Your task to perform on an android device: Go to sound settings Image 0: 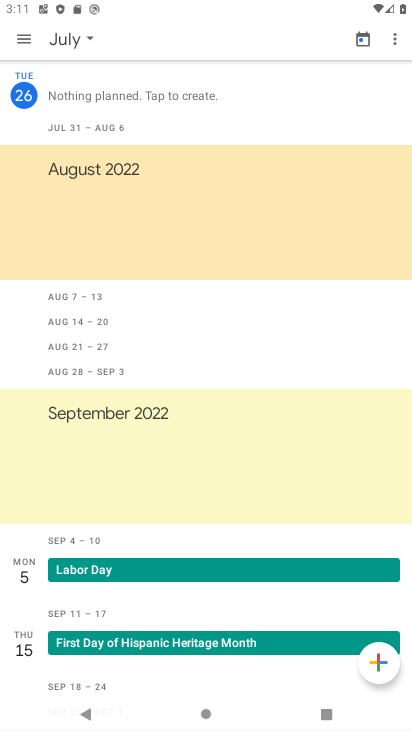
Step 0: press home button
Your task to perform on an android device: Go to sound settings Image 1: 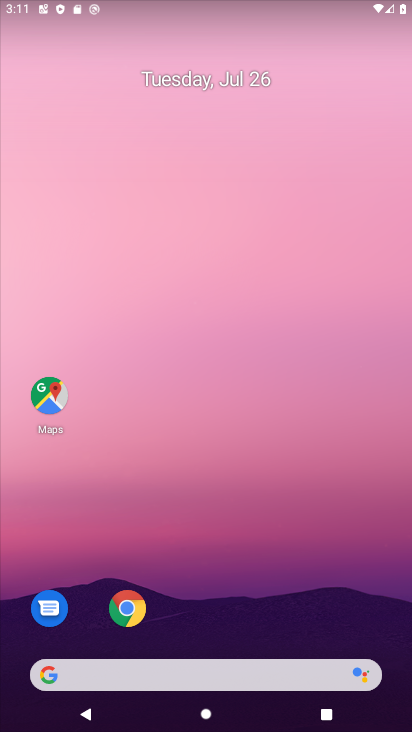
Step 1: drag from (190, 652) to (159, 10)
Your task to perform on an android device: Go to sound settings Image 2: 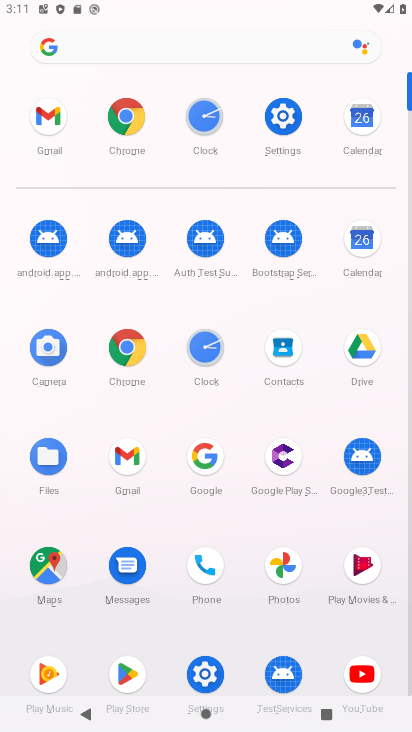
Step 2: click (287, 127)
Your task to perform on an android device: Go to sound settings Image 3: 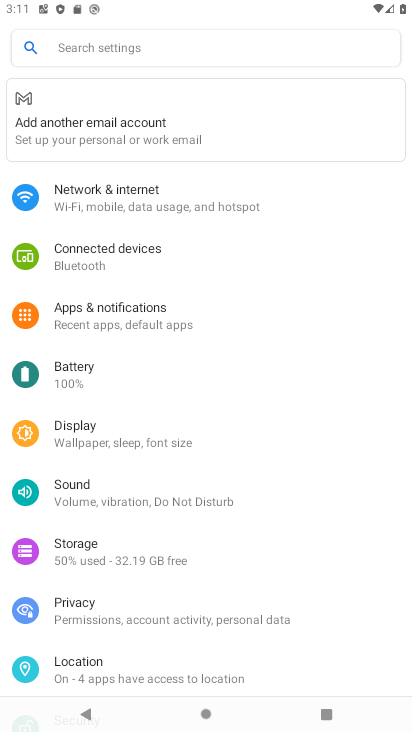
Step 3: click (162, 511)
Your task to perform on an android device: Go to sound settings Image 4: 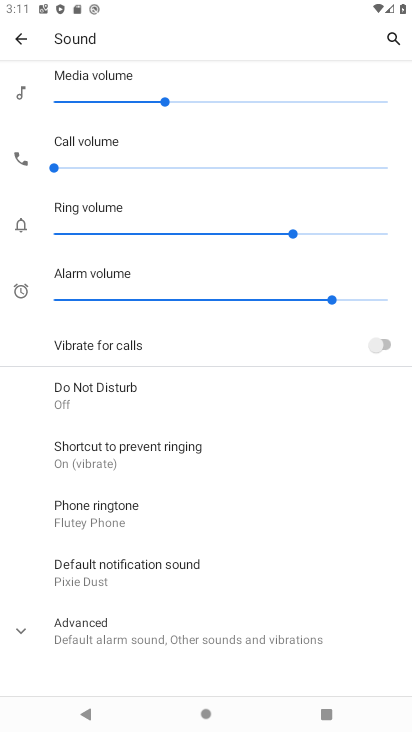
Step 4: task complete